Your task to perform on an android device: Go to Wikipedia Image 0: 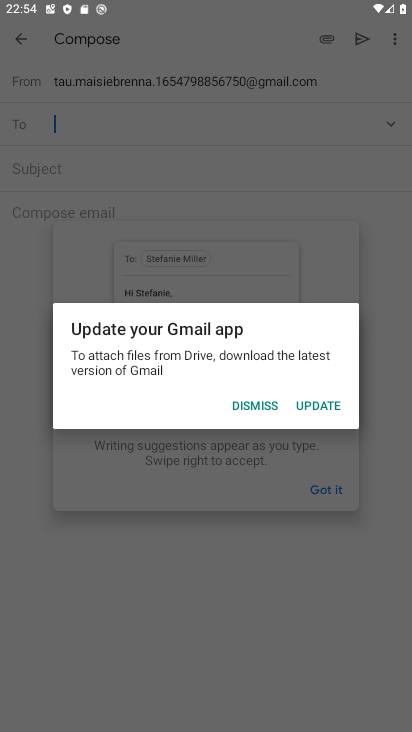
Step 0: press home button
Your task to perform on an android device: Go to Wikipedia Image 1: 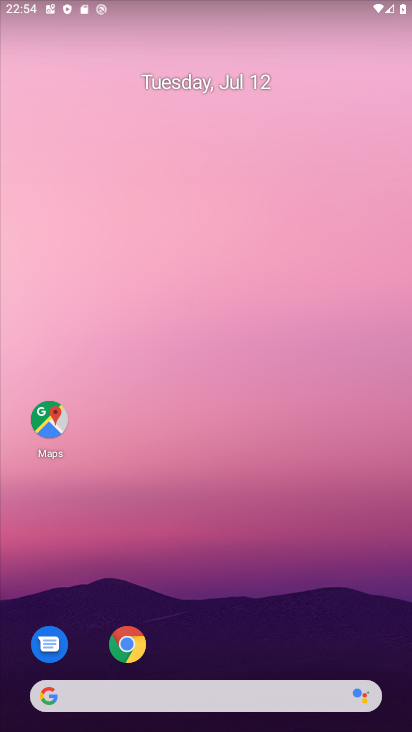
Step 1: click (267, 699)
Your task to perform on an android device: Go to Wikipedia Image 2: 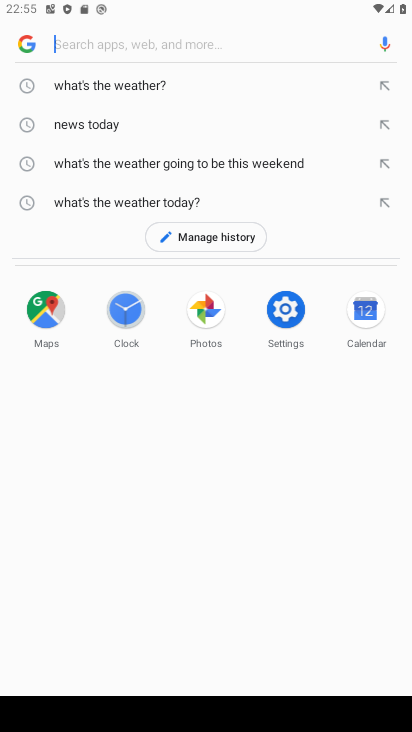
Step 2: type "wikipedia"
Your task to perform on an android device: Go to Wikipedia Image 3: 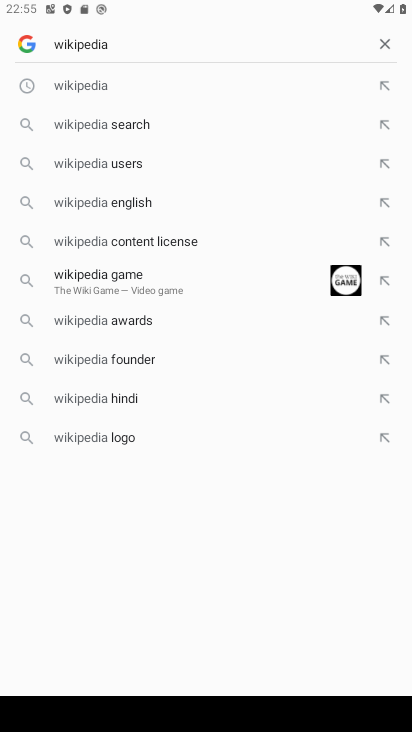
Step 3: click (77, 81)
Your task to perform on an android device: Go to Wikipedia Image 4: 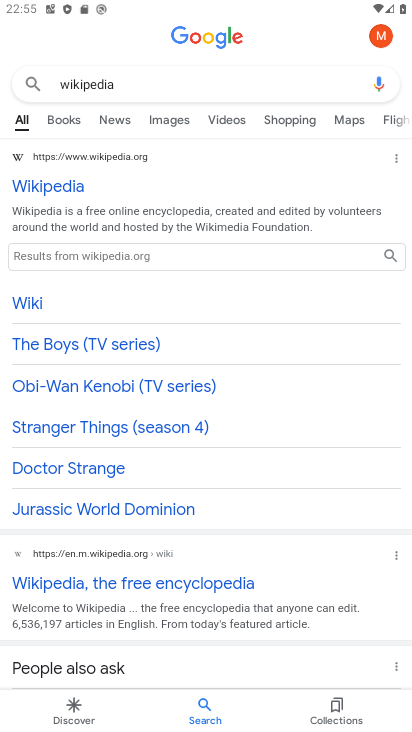
Step 4: click (71, 150)
Your task to perform on an android device: Go to Wikipedia Image 5: 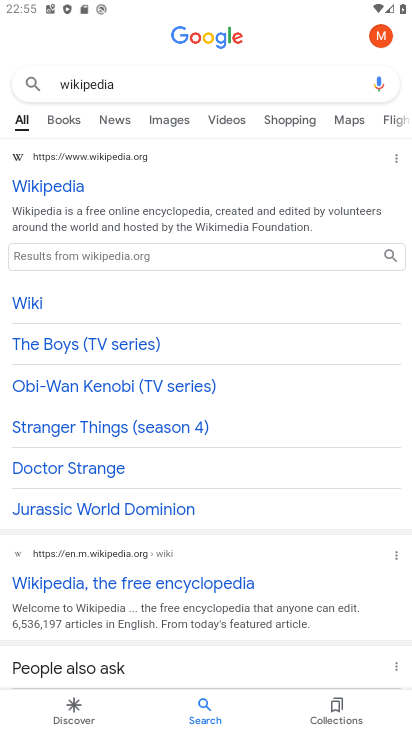
Step 5: click (66, 191)
Your task to perform on an android device: Go to Wikipedia Image 6: 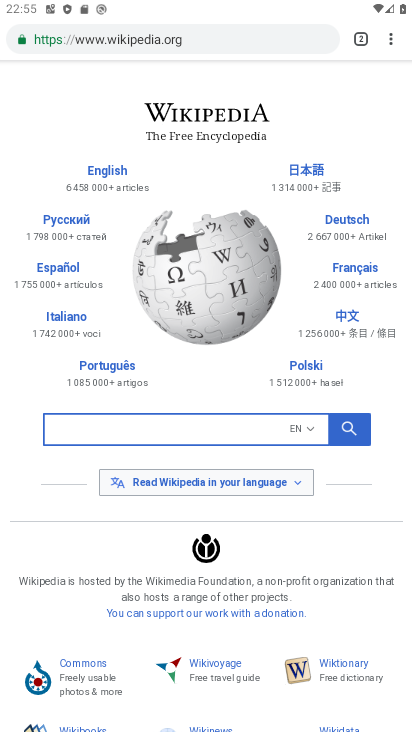
Step 6: task complete